Your task to perform on an android device: turn pop-ups off in chrome Image 0: 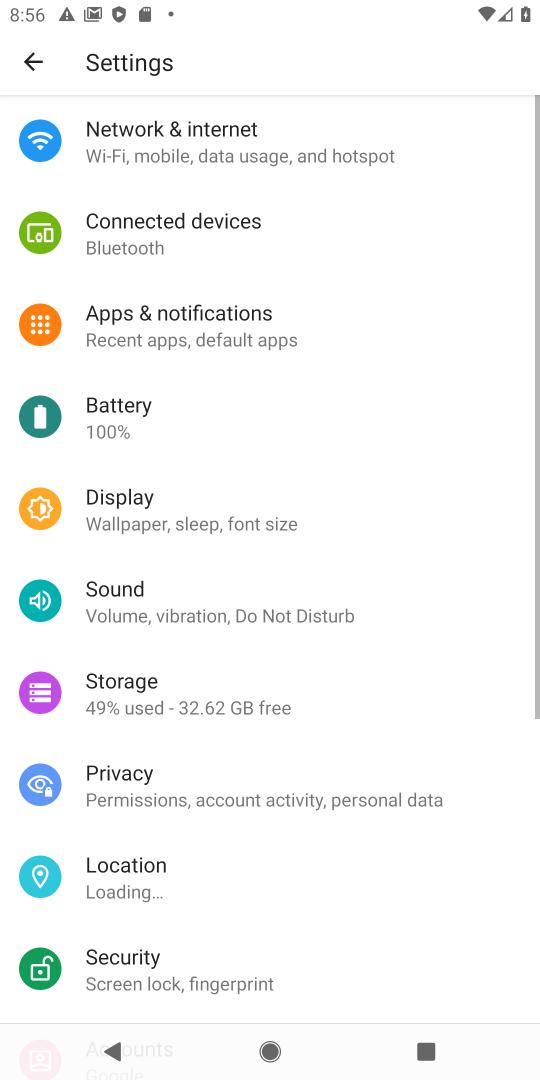
Step 0: press home button
Your task to perform on an android device: turn pop-ups off in chrome Image 1: 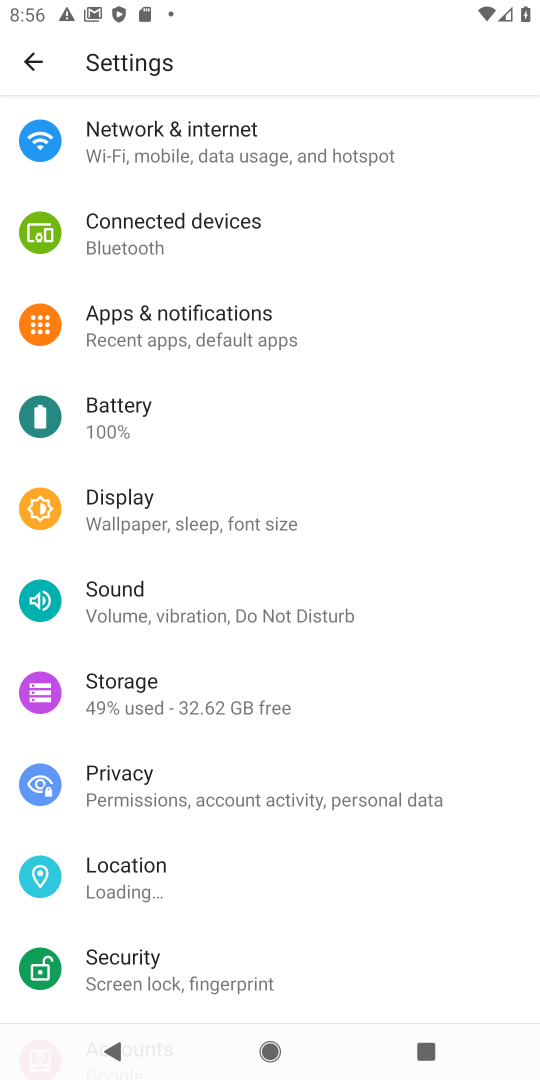
Step 1: press home button
Your task to perform on an android device: turn pop-ups off in chrome Image 2: 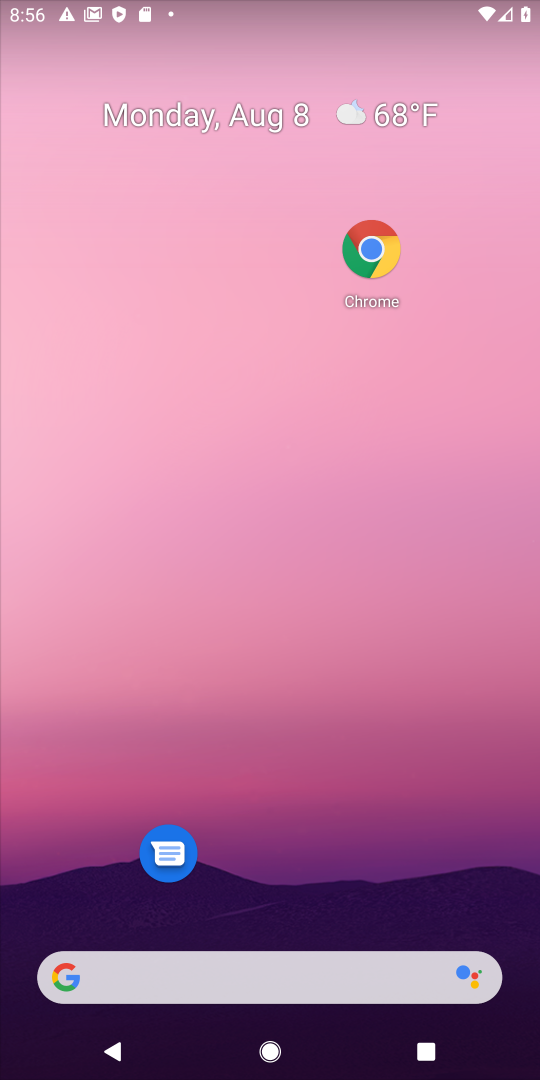
Step 2: click (380, 259)
Your task to perform on an android device: turn pop-ups off in chrome Image 3: 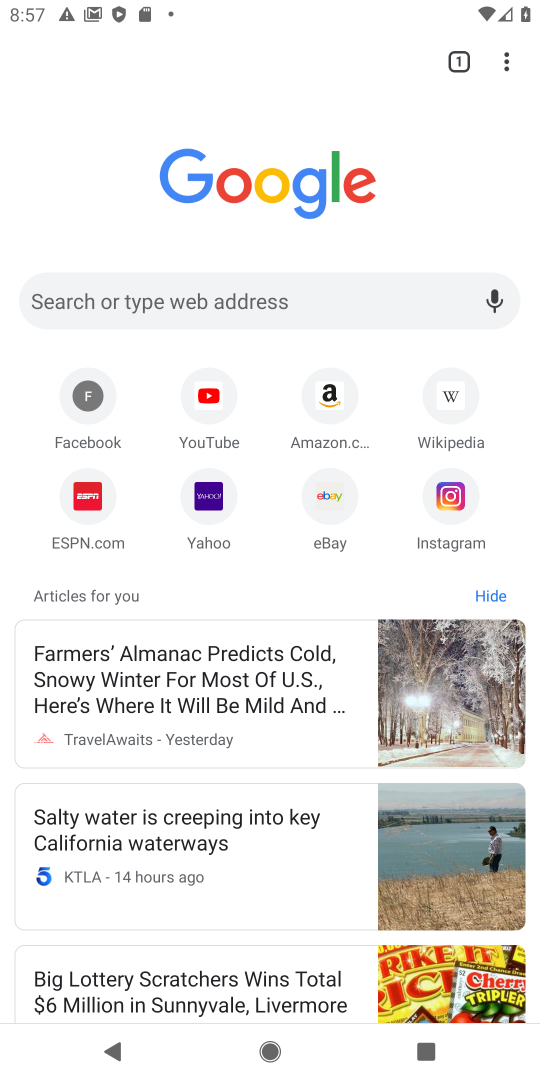
Step 3: click (503, 66)
Your task to perform on an android device: turn pop-ups off in chrome Image 4: 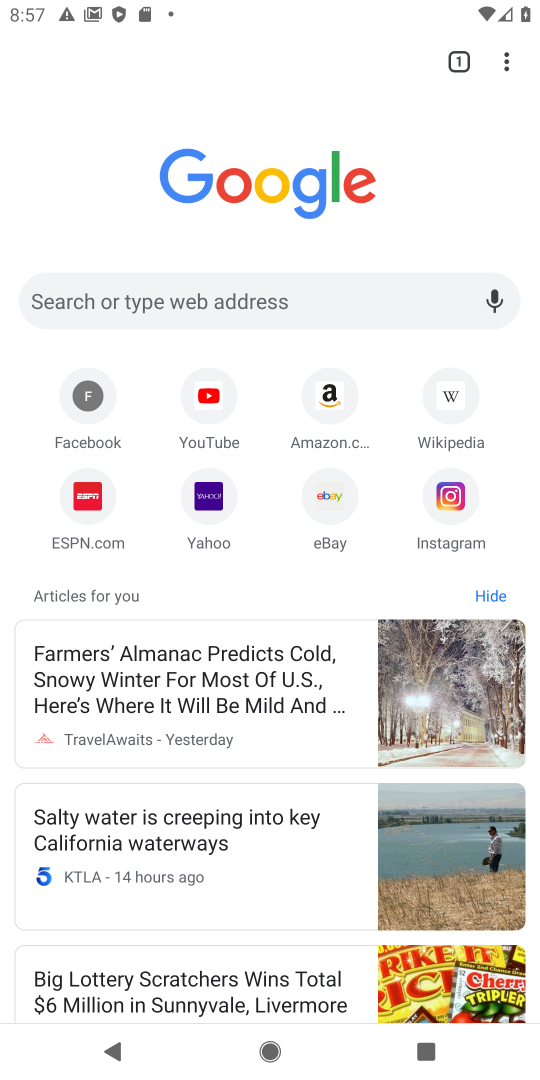
Step 4: click (503, 66)
Your task to perform on an android device: turn pop-ups off in chrome Image 5: 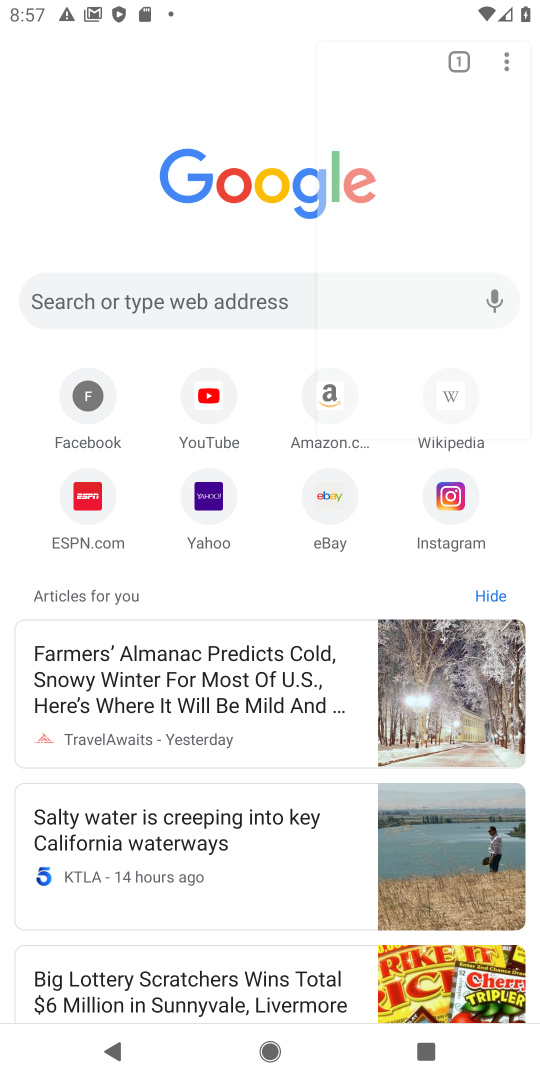
Step 5: drag from (429, 179) to (310, 484)
Your task to perform on an android device: turn pop-ups off in chrome Image 6: 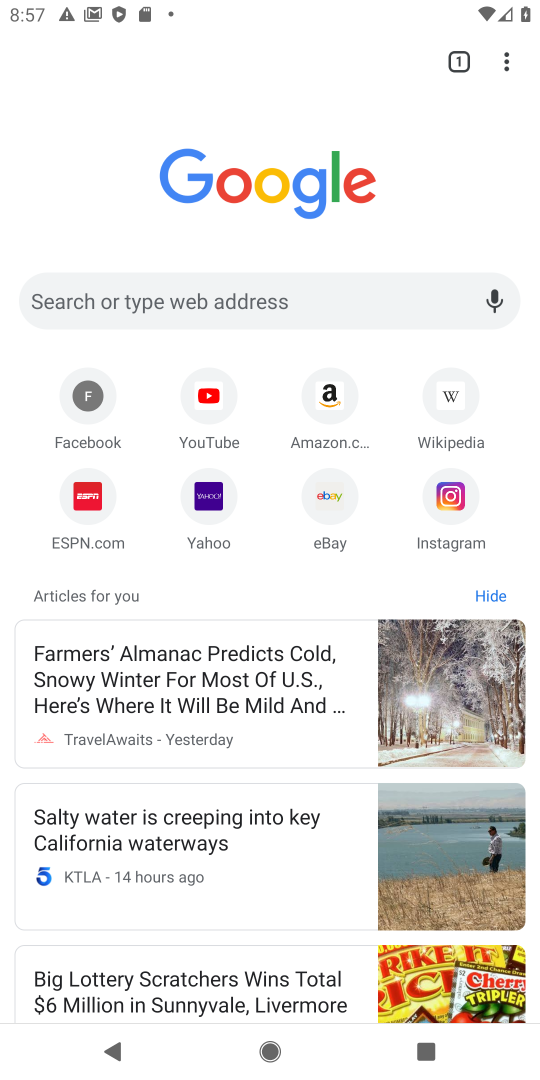
Step 6: drag from (501, 58) to (260, 506)
Your task to perform on an android device: turn pop-ups off in chrome Image 7: 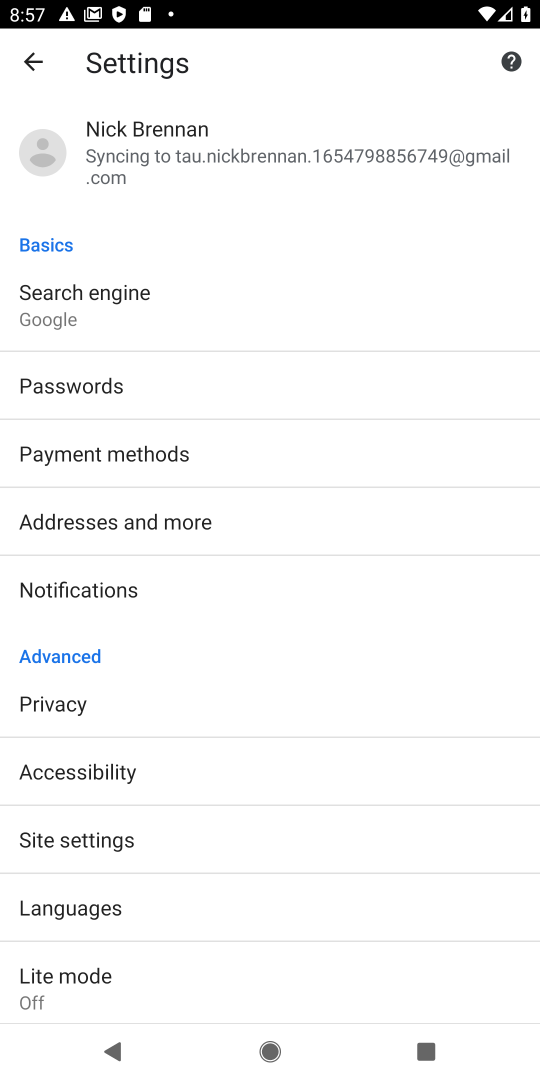
Step 7: click (93, 840)
Your task to perform on an android device: turn pop-ups off in chrome Image 8: 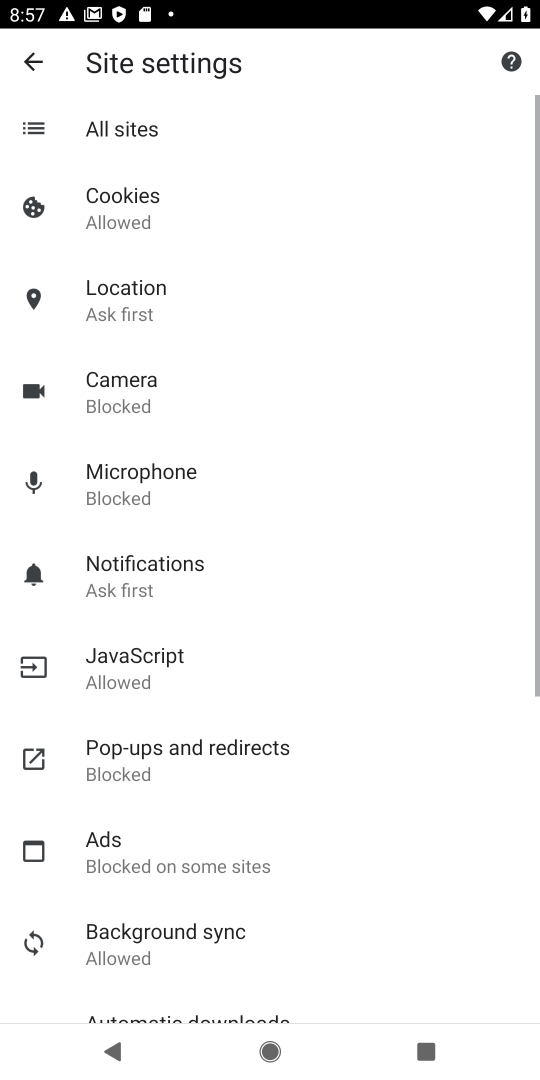
Step 8: click (91, 750)
Your task to perform on an android device: turn pop-ups off in chrome Image 9: 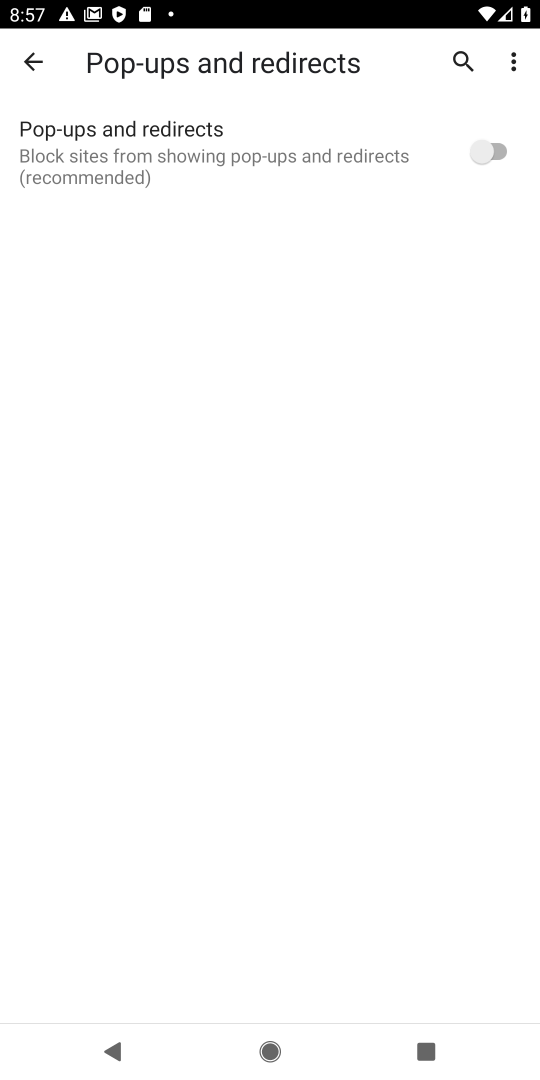
Step 9: click (418, 148)
Your task to perform on an android device: turn pop-ups off in chrome Image 10: 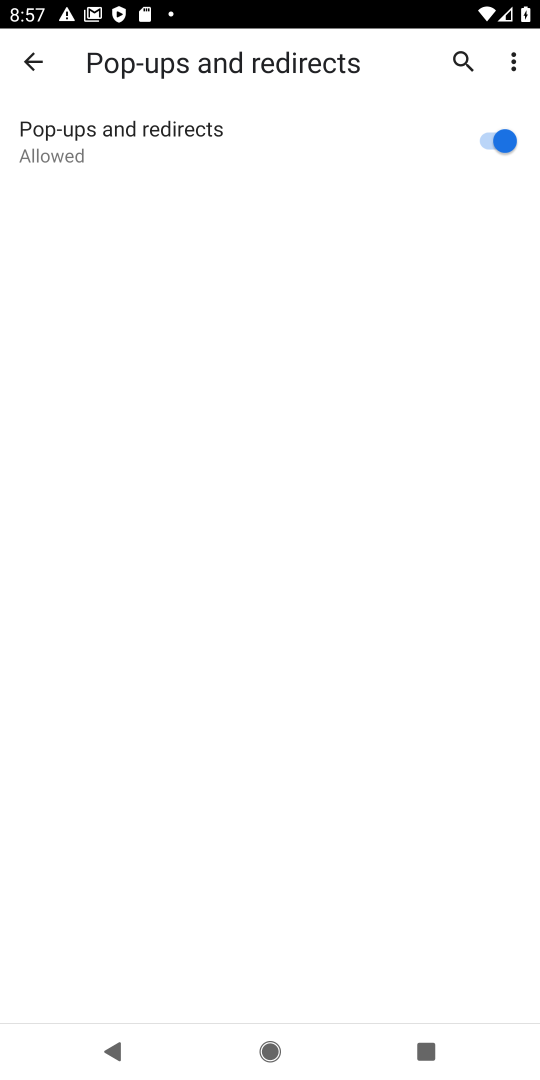
Step 10: click (418, 148)
Your task to perform on an android device: turn pop-ups off in chrome Image 11: 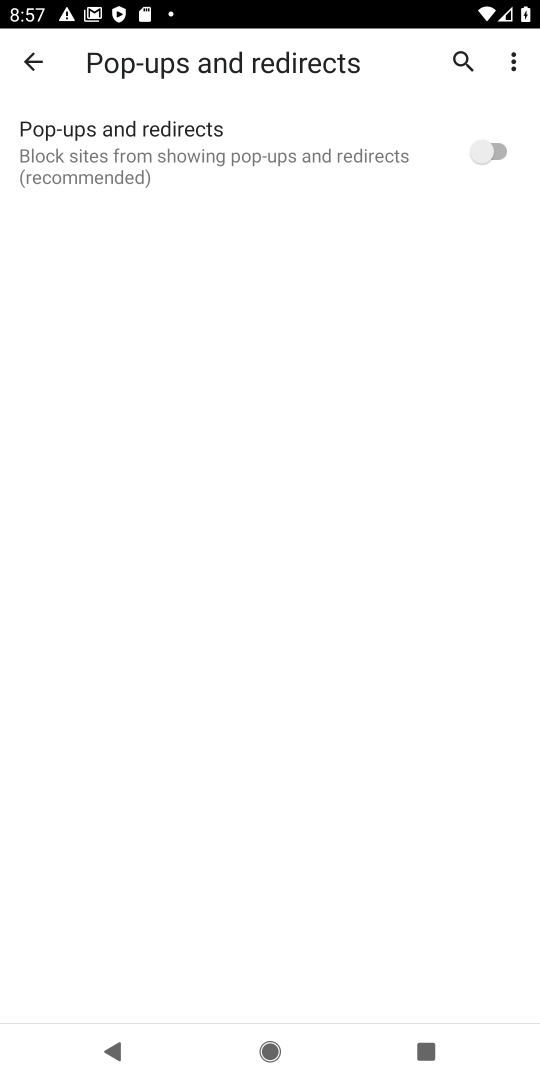
Step 11: task complete